Your task to perform on an android device: star an email in the gmail app Image 0: 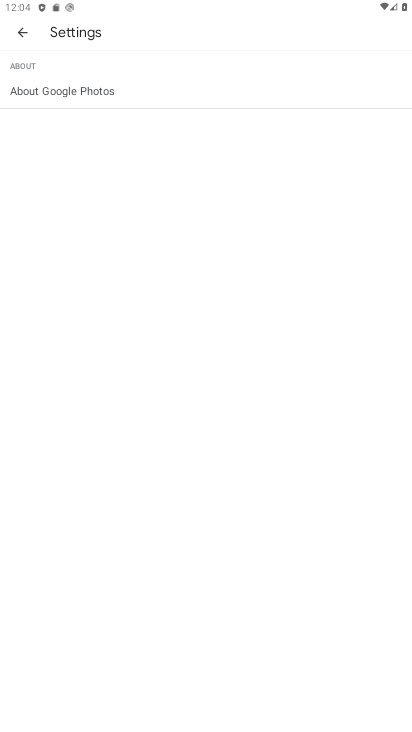
Step 0: task complete